Your task to perform on an android device: add a label to a message in the gmail app Image 0: 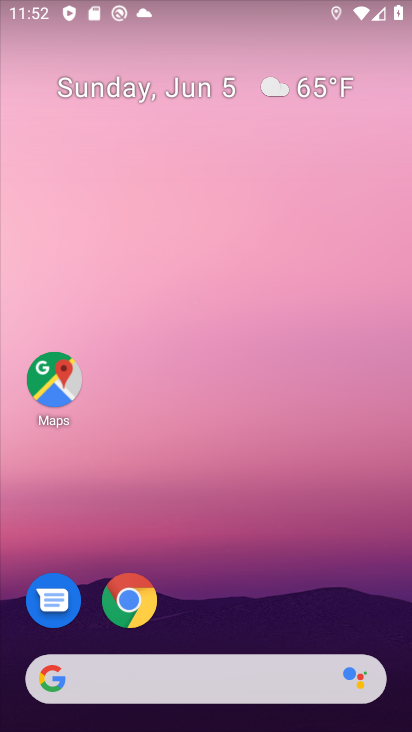
Step 0: drag from (392, 689) to (281, 175)
Your task to perform on an android device: add a label to a message in the gmail app Image 1: 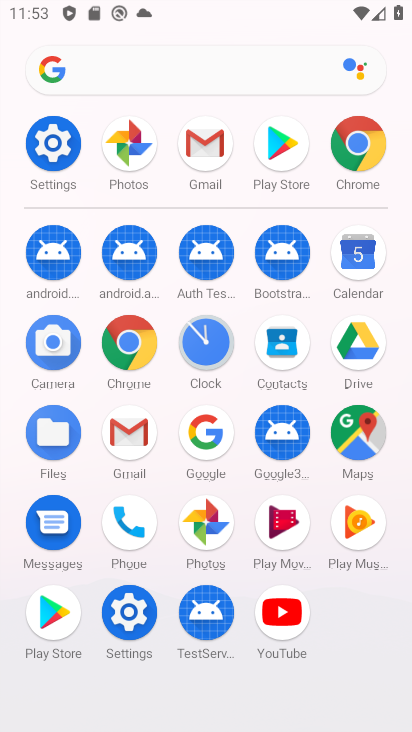
Step 1: click (140, 423)
Your task to perform on an android device: add a label to a message in the gmail app Image 2: 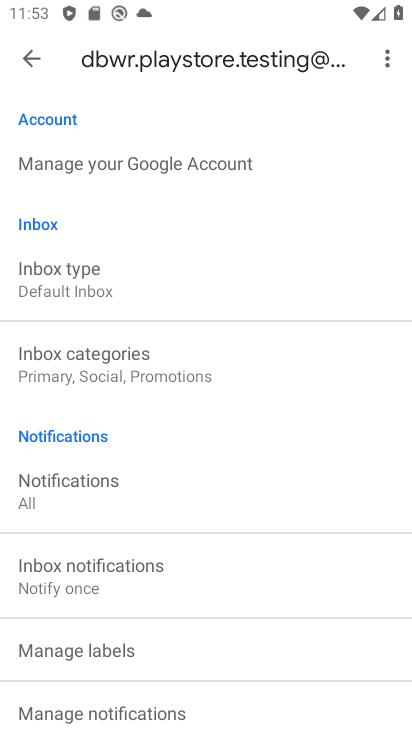
Step 2: drag from (247, 178) to (290, 595)
Your task to perform on an android device: add a label to a message in the gmail app Image 3: 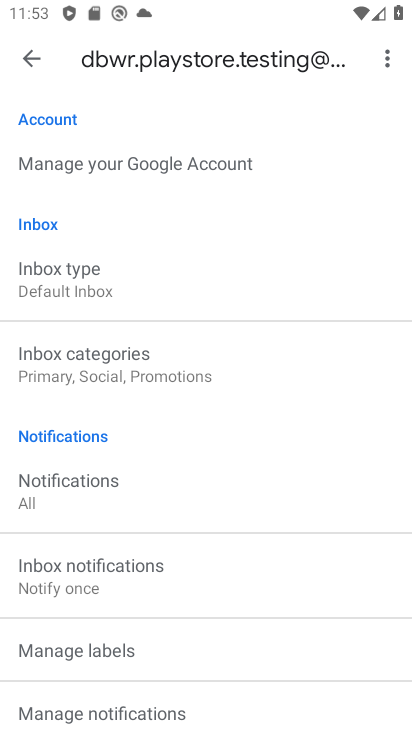
Step 3: click (28, 57)
Your task to perform on an android device: add a label to a message in the gmail app Image 4: 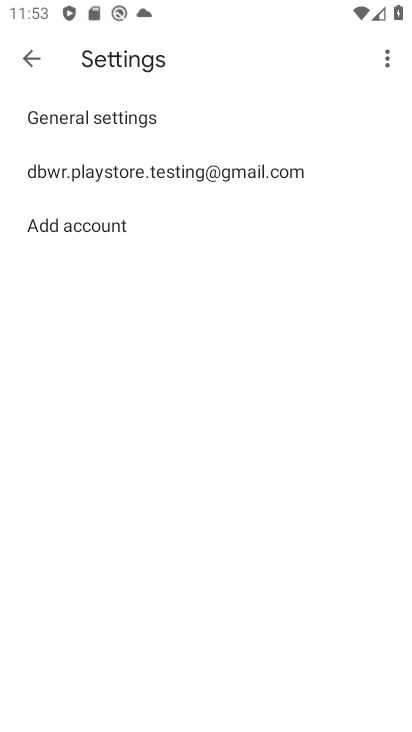
Step 4: click (29, 64)
Your task to perform on an android device: add a label to a message in the gmail app Image 5: 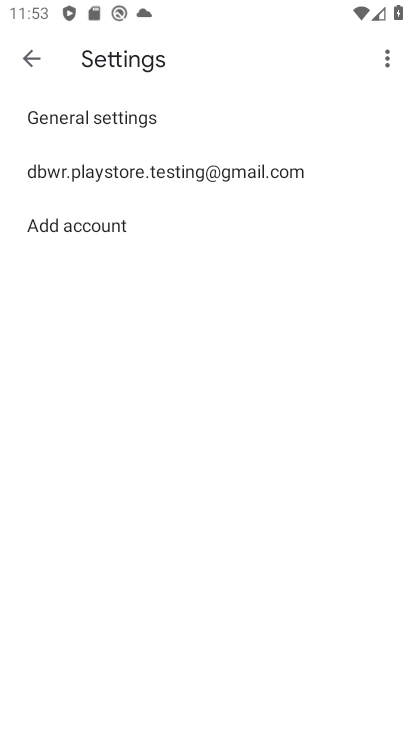
Step 5: click (30, 58)
Your task to perform on an android device: add a label to a message in the gmail app Image 6: 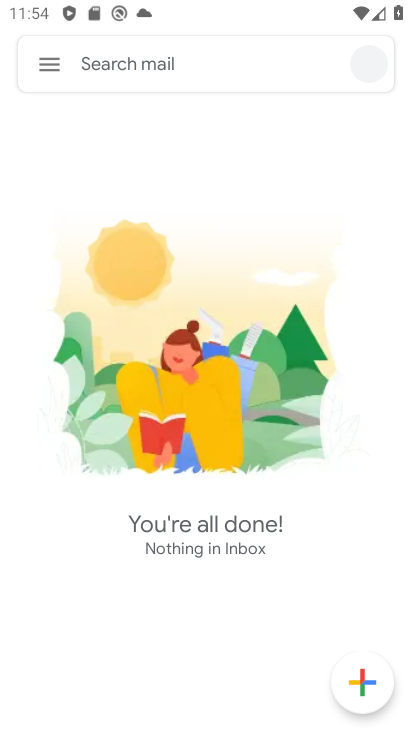
Step 6: click (49, 60)
Your task to perform on an android device: add a label to a message in the gmail app Image 7: 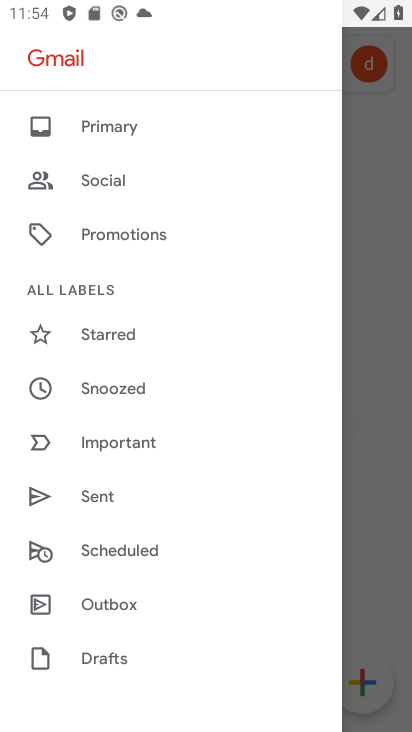
Step 7: drag from (174, 135) to (196, 552)
Your task to perform on an android device: add a label to a message in the gmail app Image 8: 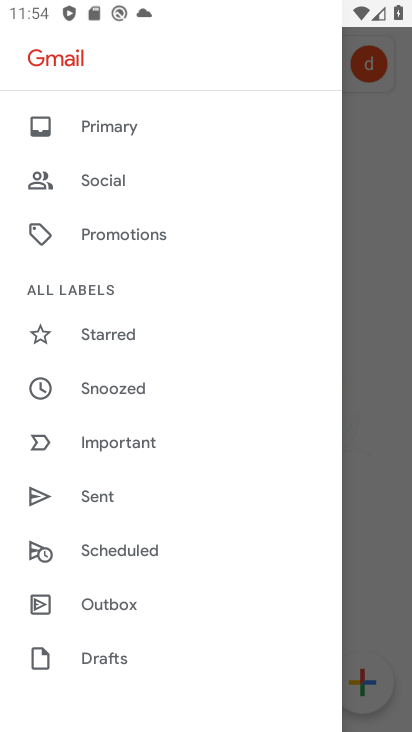
Step 8: click (104, 117)
Your task to perform on an android device: add a label to a message in the gmail app Image 9: 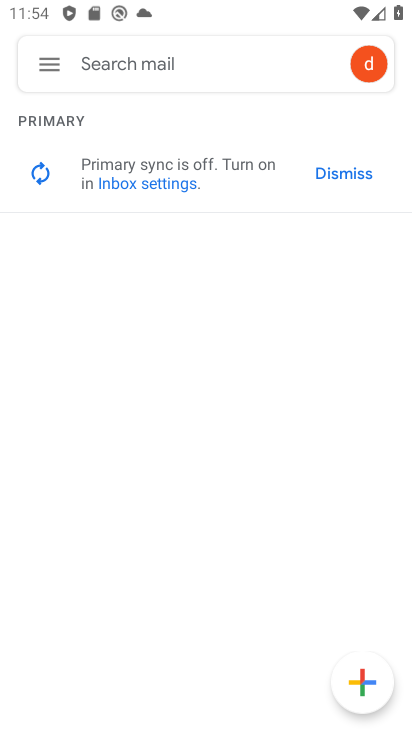
Step 9: task complete